Your task to perform on an android device: Find coffee shops on Maps Image 0: 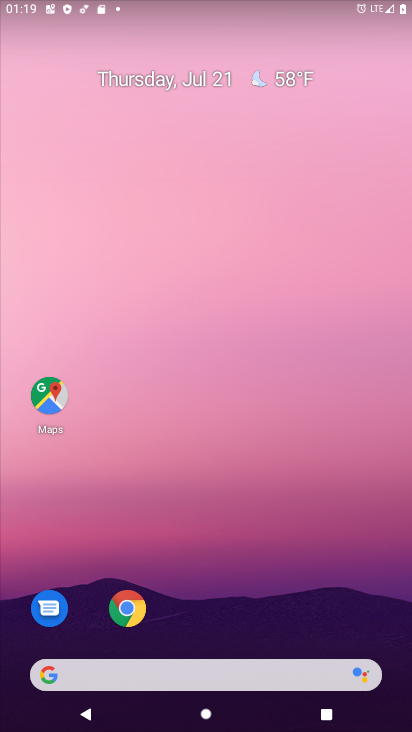
Step 0: press home button
Your task to perform on an android device: Find coffee shops on Maps Image 1: 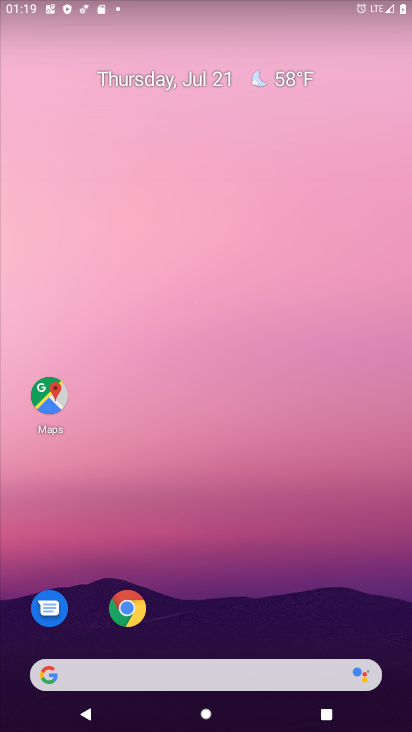
Step 1: click (47, 391)
Your task to perform on an android device: Find coffee shops on Maps Image 2: 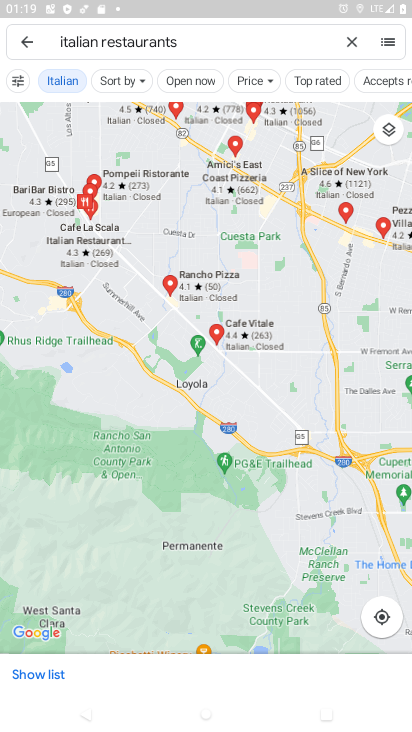
Step 2: click (352, 40)
Your task to perform on an android device: Find coffee shops on Maps Image 3: 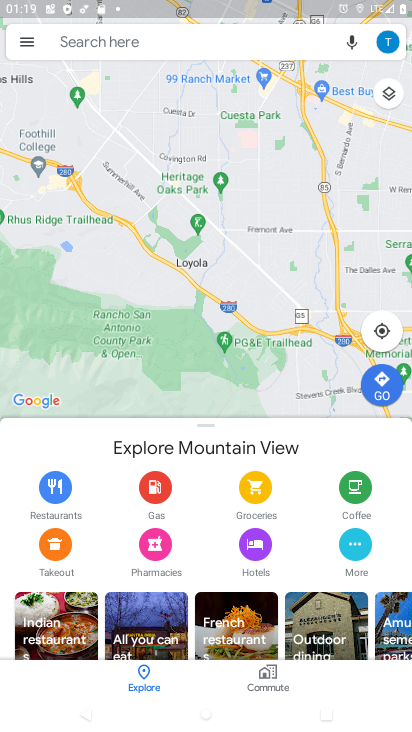
Step 3: click (76, 37)
Your task to perform on an android device: Find coffee shops on Maps Image 4: 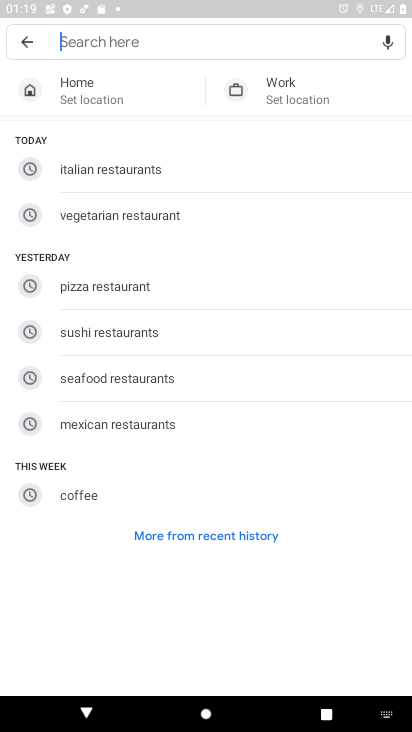
Step 4: click (85, 499)
Your task to perform on an android device: Find coffee shops on Maps Image 5: 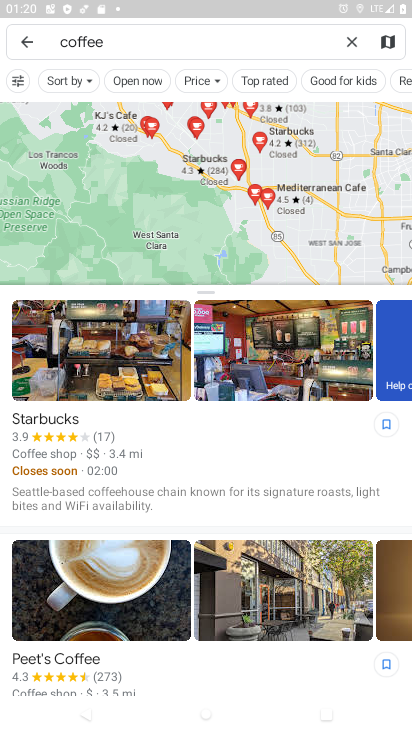
Step 5: task complete